Your task to perform on an android device: Open Google Maps and go to "Timeline" Image 0: 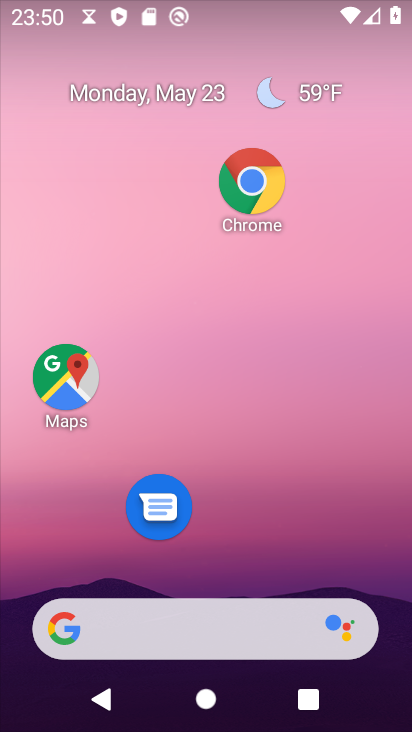
Step 0: click (68, 366)
Your task to perform on an android device: Open Google Maps and go to "Timeline" Image 1: 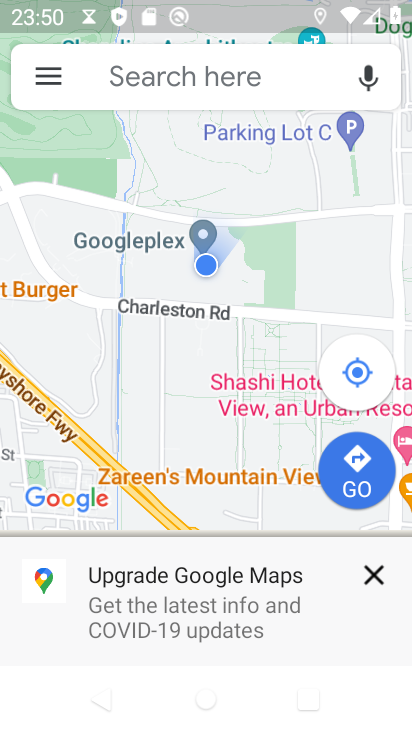
Step 1: click (45, 82)
Your task to perform on an android device: Open Google Maps and go to "Timeline" Image 2: 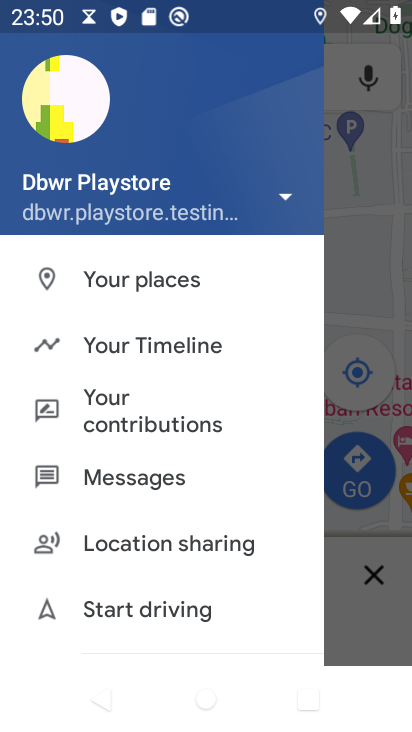
Step 2: click (139, 346)
Your task to perform on an android device: Open Google Maps and go to "Timeline" Image 3: 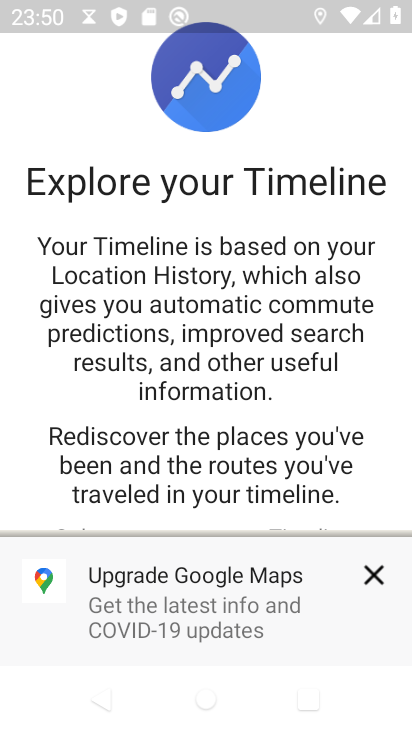
Step 3: click (373, 562)
Your task to perform on an android device: Open Google Maps and go to "Timeline" Image 4: 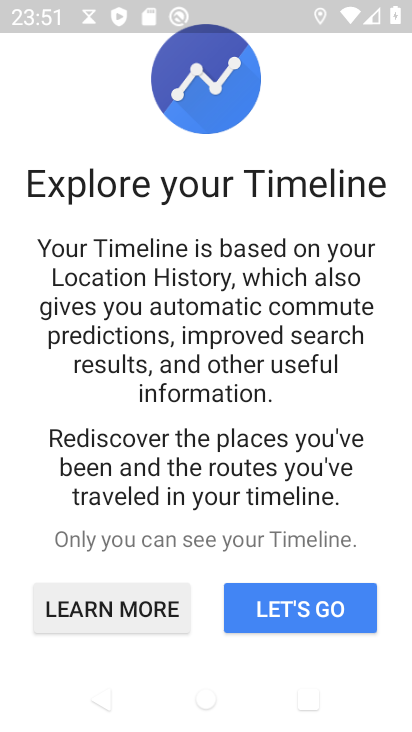
Step 4: task complete